Your task to perform on an android device: Open accessibility settings Image 0: 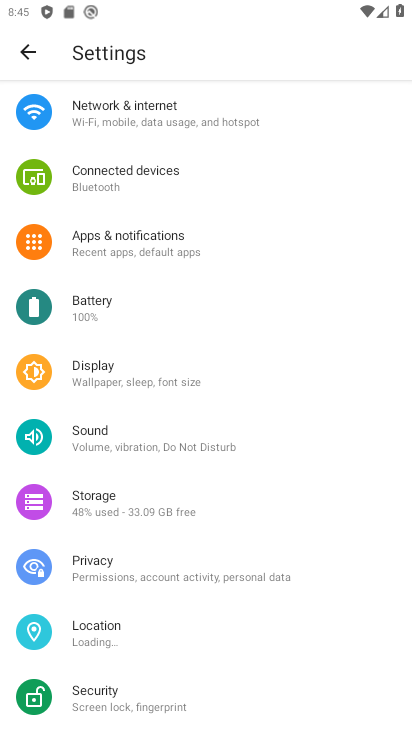
Step 0: drag from (176, 603) to (317, 115)
Your task to perform on an android device: Open accessibility settings Image 1: 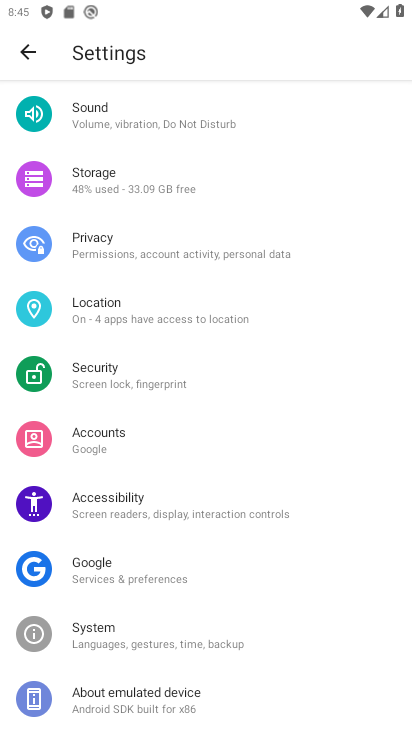
Step 1: drag from (132, 623) to (274, 199)
Your task to perform on an android device: Open accessibility settings Image 2: 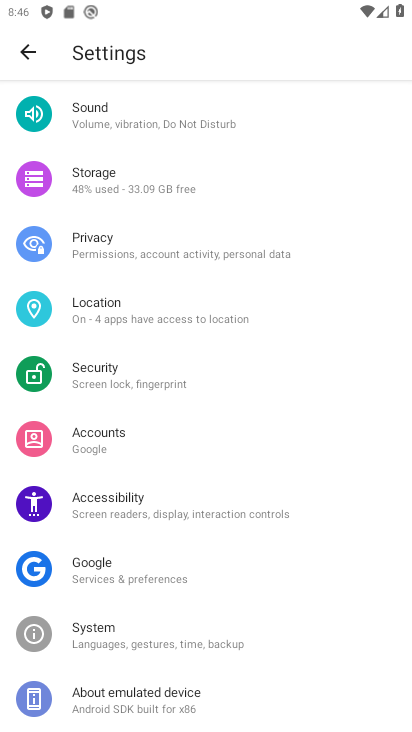
Step 2: click (137, 498)
Your task to perform on an android device: Open accessibility settings Image 3: 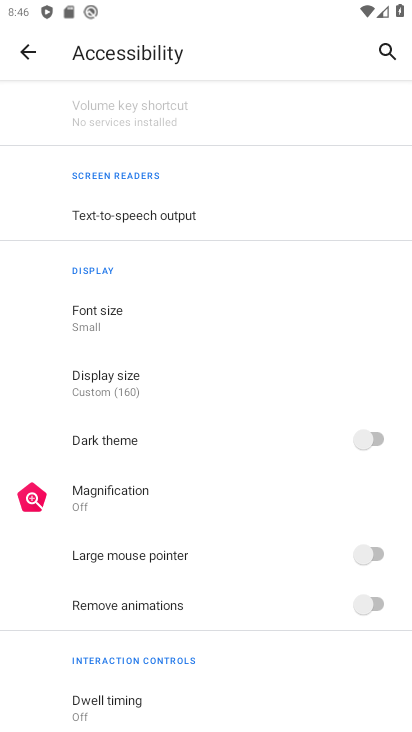
Step 3: task complete